Your task to perform on an android device: Open settings Image 0: 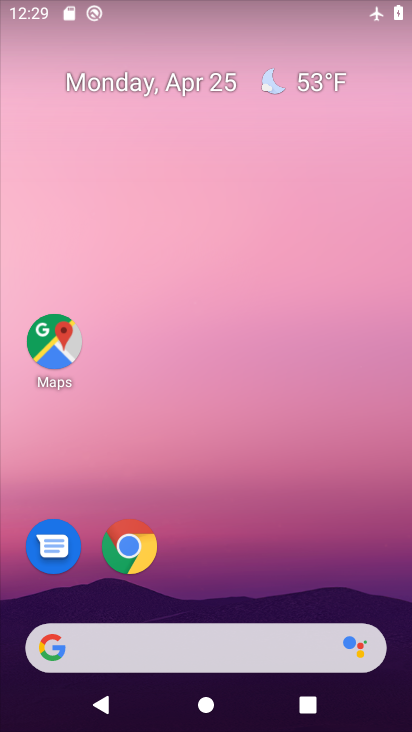
Step 0: drag from (191, 524) to (183, 37)
Your task to perform on an android device: Open settings Image 1: 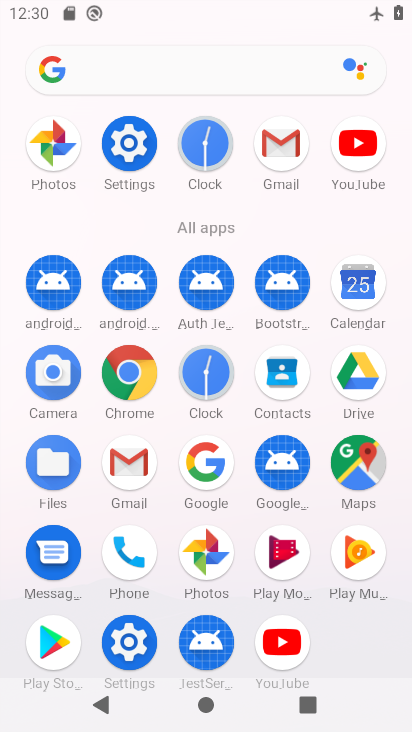
Step 1: click (132, 660)
Your task to perform on an android device: Open settings Image 2: 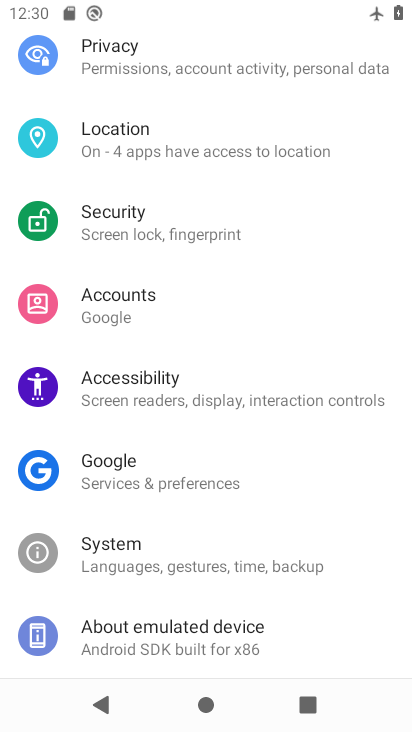
Step 2: task complete